Your task to perform on an android device: Go to internet settings Image 0: 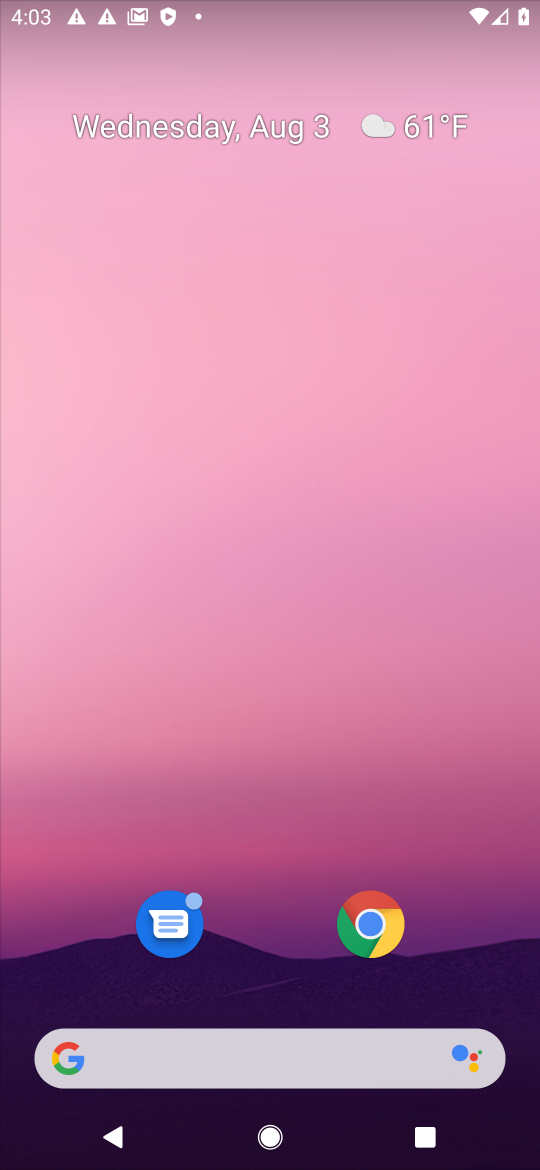
Step 0: drag from (264, 991) to (241, 257)
Your task to perform on an android device: Go to internet settings Image 1: 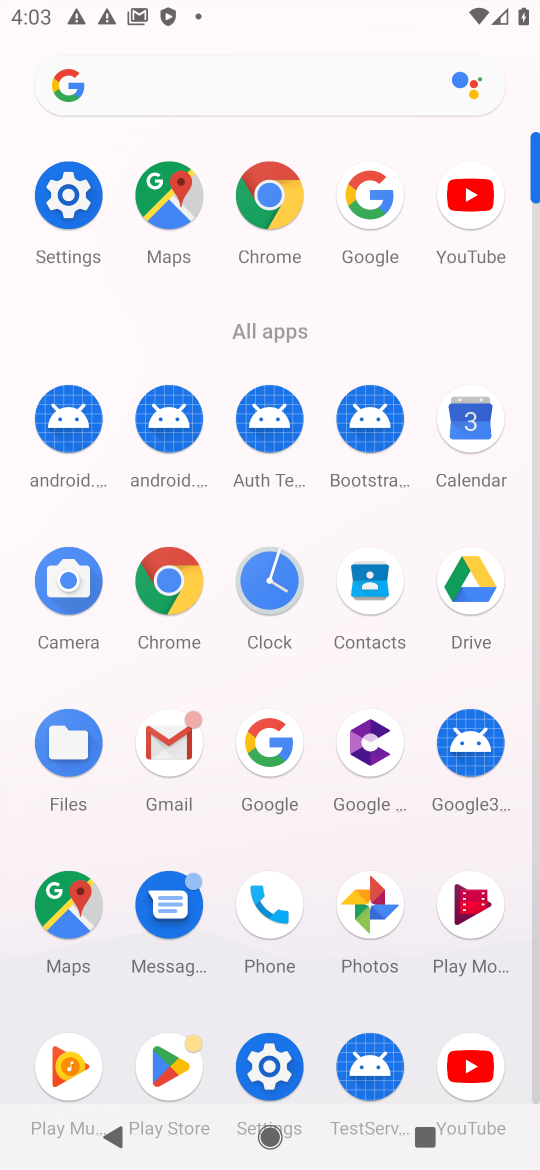
Step 1: click (59, 213)
Your task to perform on an android device: Go to internet settings Image 2: 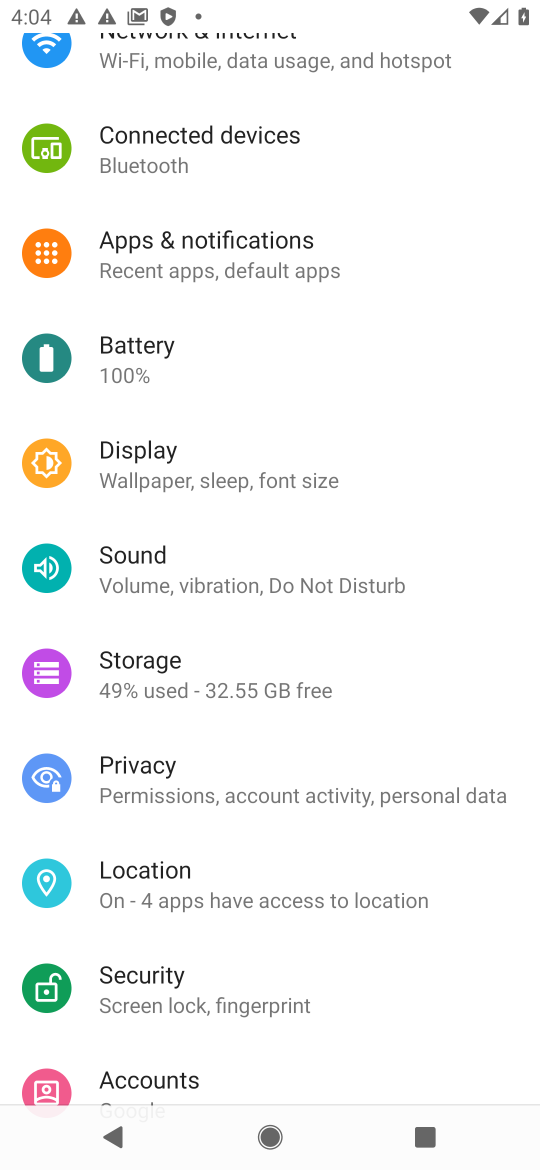
Step 2: drag from (266, 212) to (345, 748)
Your task to perform on an android device: Go to internet settings Image 3: 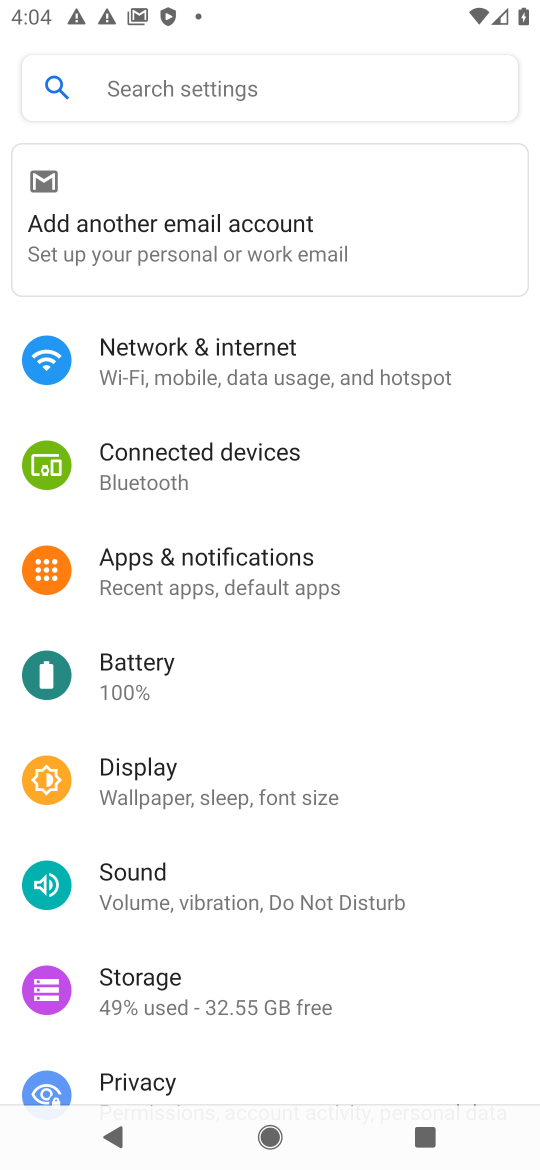
Step 3: click (275, 339)
Your task to perform on an android device: Go to internet settings Image 4: 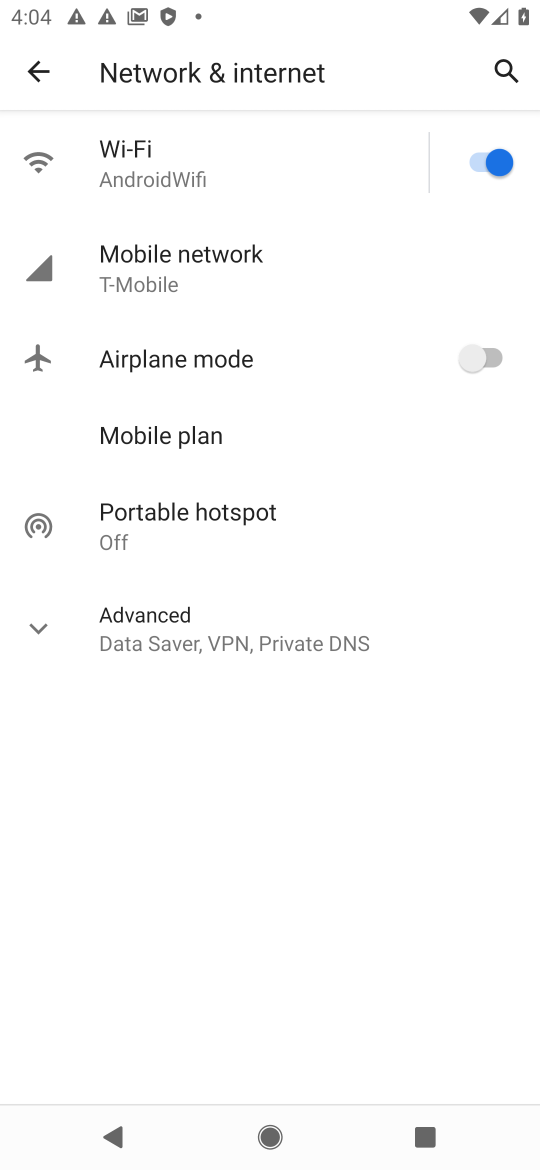
Step 4: task complete